Your task to perform on an android device: change text size in settings app Image 0: 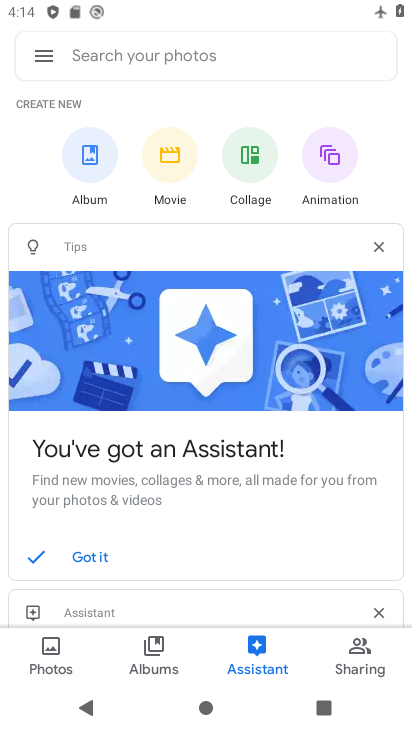
Step 0: press home button
Your task to perform on an android device: change text size in settings app Image 1: 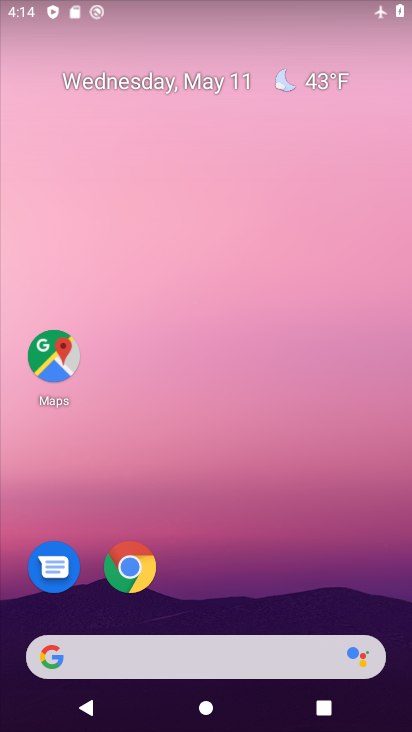
Step 1: drag from (221, 620) to (230, 96)
Your task to perform on an android device: change text size in settings app Image 2: 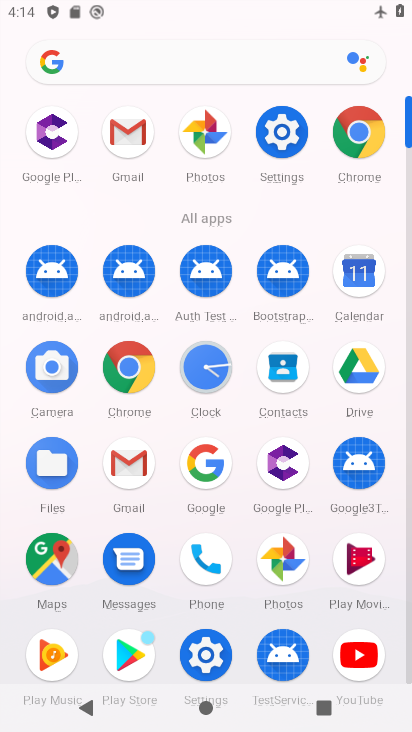
Step 2: click (272, 154)
Your task to perform on an android device: change text size in settings app Image 3: 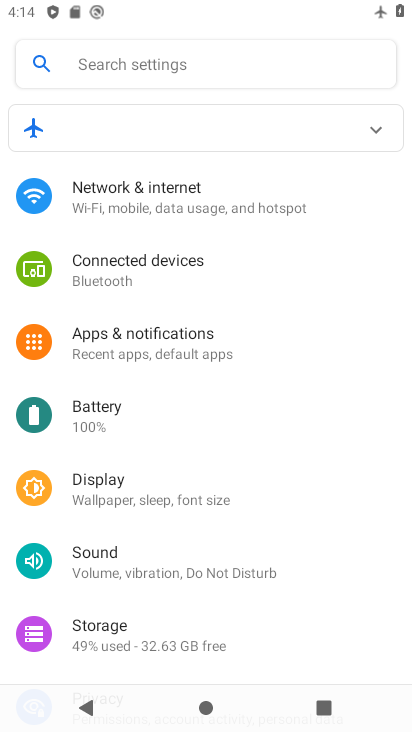
Step 3: drag from (324, 618) to (256, 244)
Your task to perform on an android device: change text size in settings app Image 4: 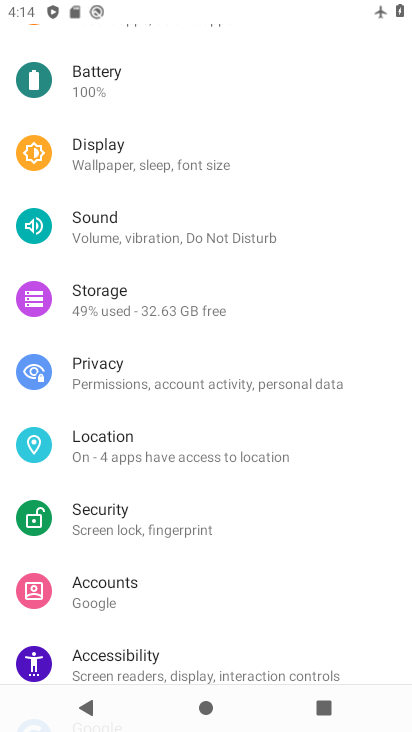
Step 4: click (230, 168)
Your task to perform on an android device: change text size in settings app Image 5: 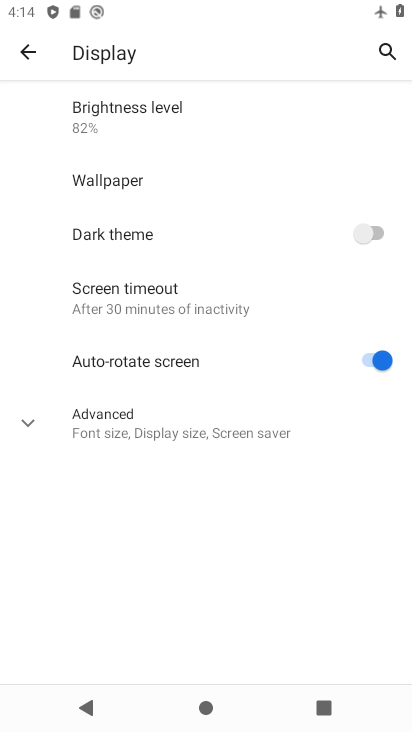
Step 5: click (173, 440)
Your task to perform on an android device: change text size in settings app Image 6: 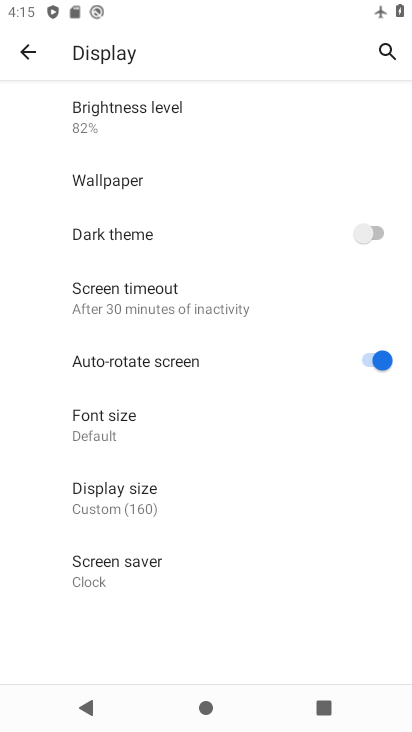
Step 6: click (175, 427)
Your task to perform on an android device: change text size in settings app Image 7: 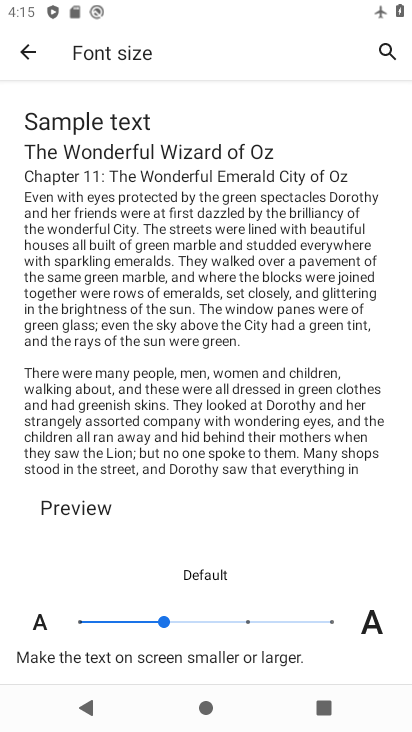
Step 7: click (250, 618)
Your task to perform on an android device: change text size in settings app Image 8: 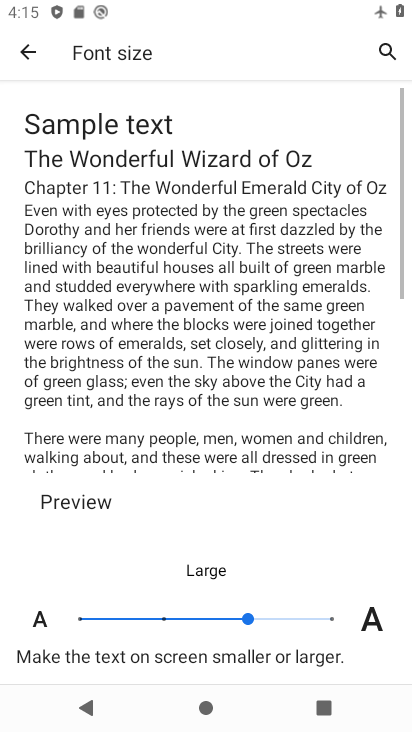
Step 8: task complete